Your task to perform on an android device: change the clock style Image 0: 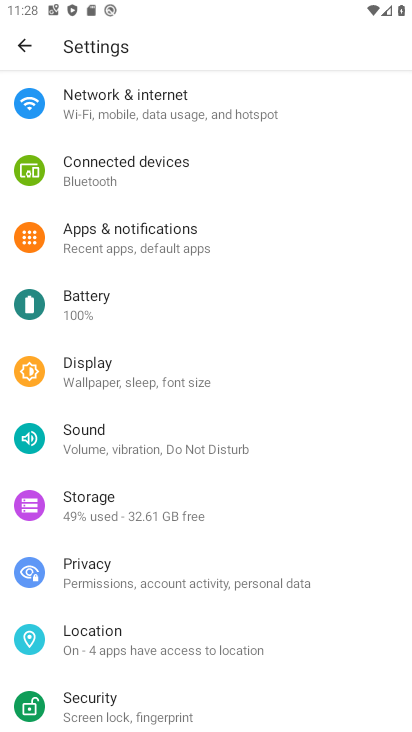
Step 0: press home button
Your task to perform on an android device: change the clock style Image 1: 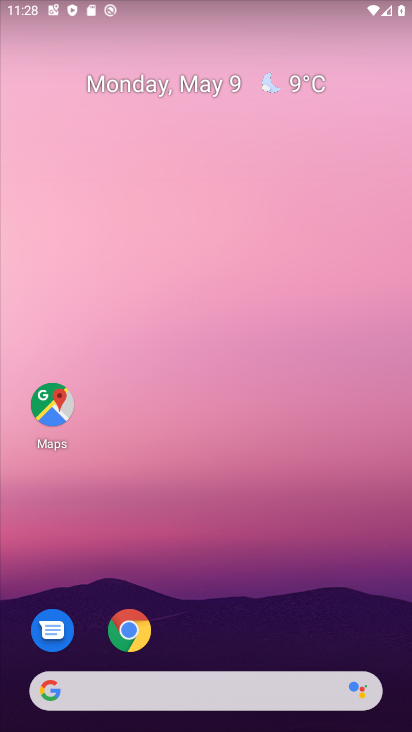
Step 1: drag from (256, 537) to (121, 192)
Your task to perform on an android device: change the clock style Image 2: 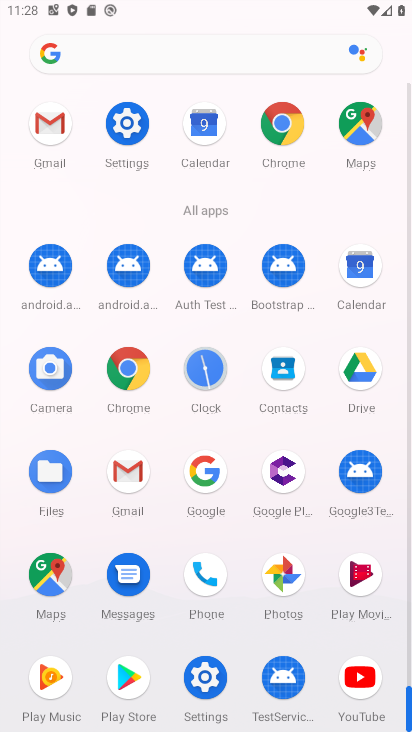
Step 2: click (201, 373)
Your task to perform on an android device: change the clock style Image 3: 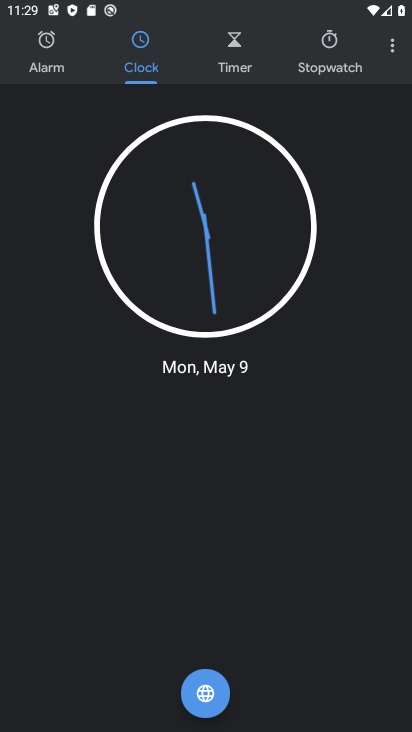
Step 3: click (396, 45)
Your task to perform on an android device: change the clock style Image 4: 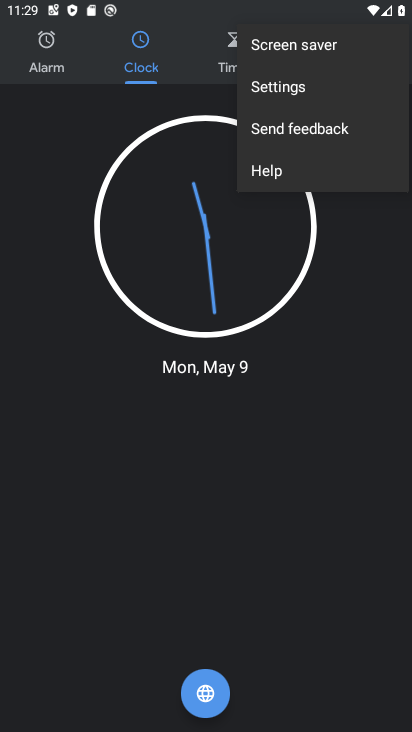
Step 4: click (292, 82)
Your task to perform on an android device: change the clock style Image 5: 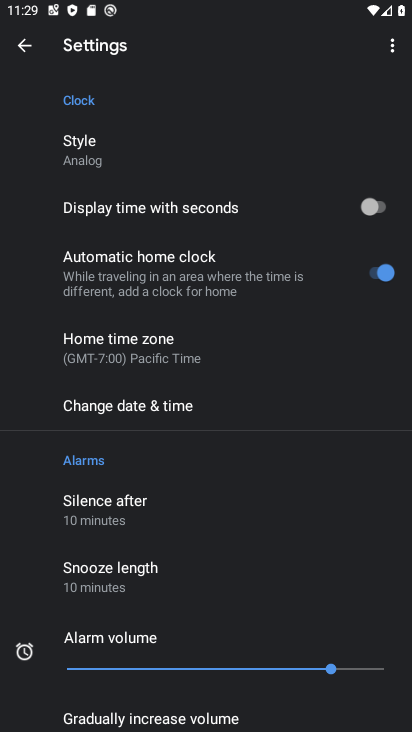
Step 5: click (79, 138)
Your task to perform on an android device: change the clock style Image 6: 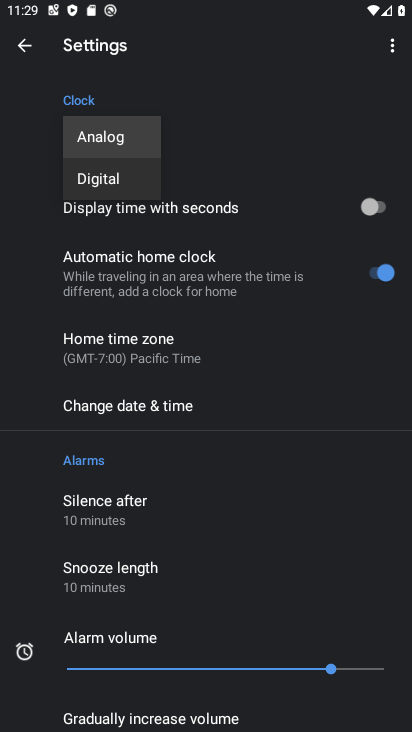
Step 6: click (106, 190)
Your task to perform on an android device: change the clock style Image 7: 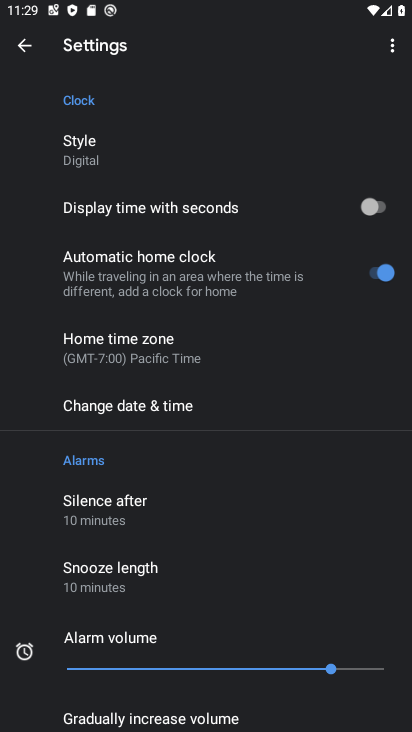
Step 7: task complete